Your task to perform on an android device: toggle location history Image 0: 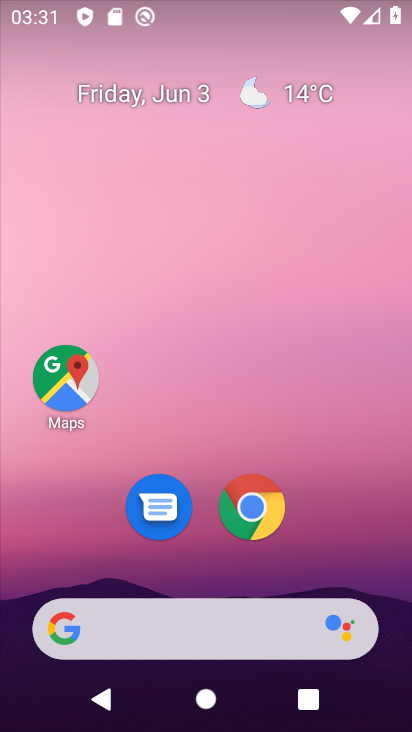
Step 0: press home button
Your task to perform on an android device: toggle location history Image 1: 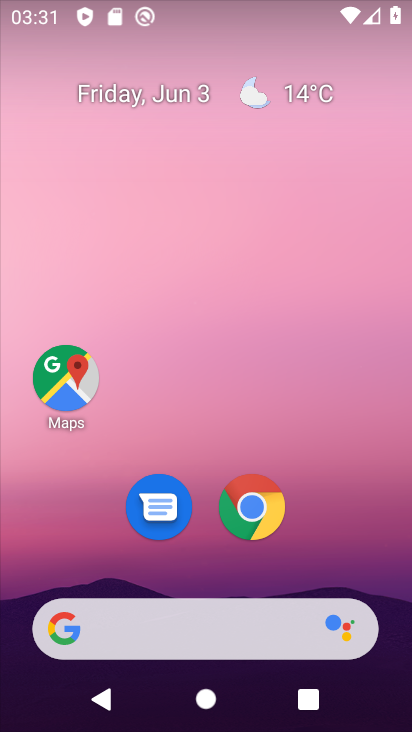
Step 1: drag from (225, 571) to (223, 11)
Your task to perform on an android device: toggle location history Image 2: 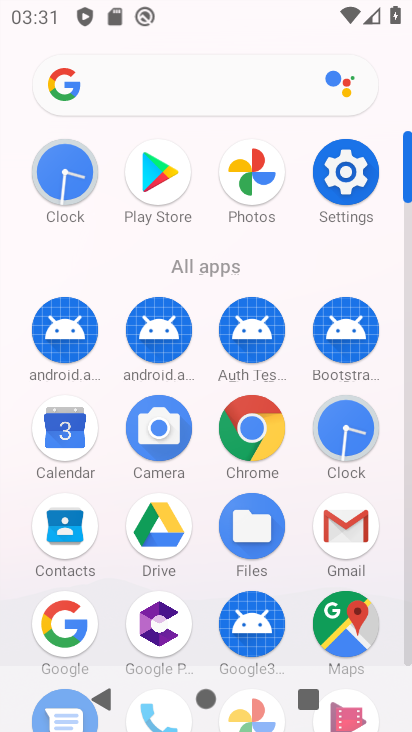
Step 2: click (340, 182)
Your task to perform on an android device: toggle location history Image 3: 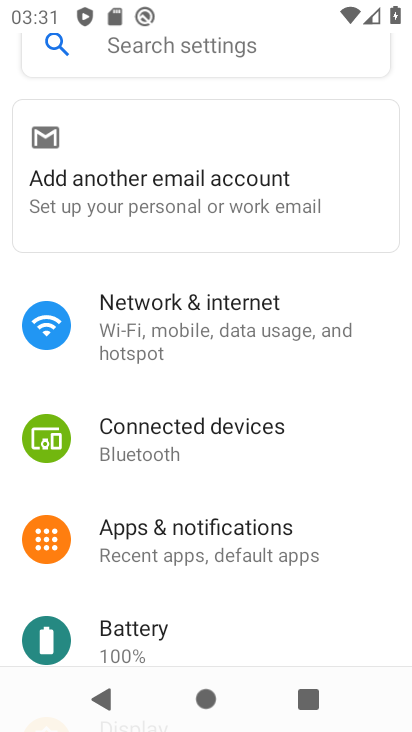
Step 3: drag from (270, 578) to (268, 202)
Your task to perform on an android device: toggle location history Image 4: 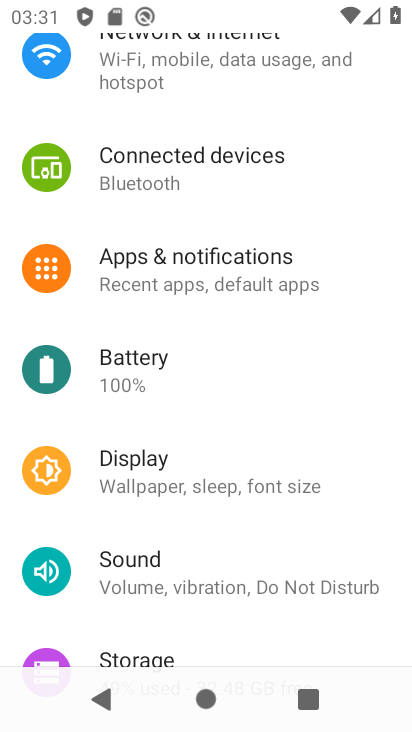
Step 4: drag from (263, 634) to (271, 346)
Your task to perform on an android device: toggle location history Image 5: 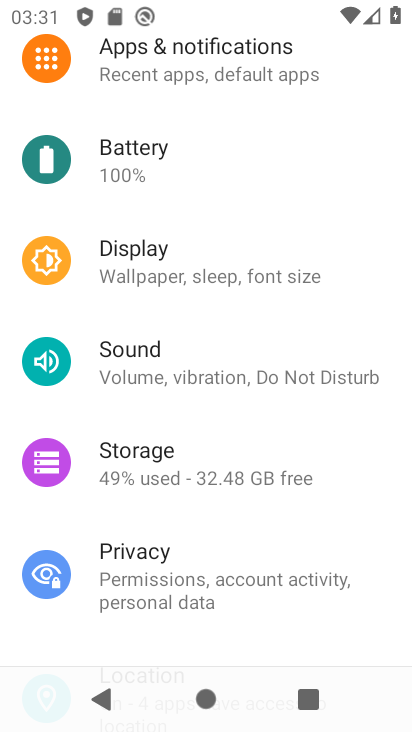
Step 5: drag from (380, 556) to (395, 187)
Your task to perform on an android device: toggle location history Image 6: 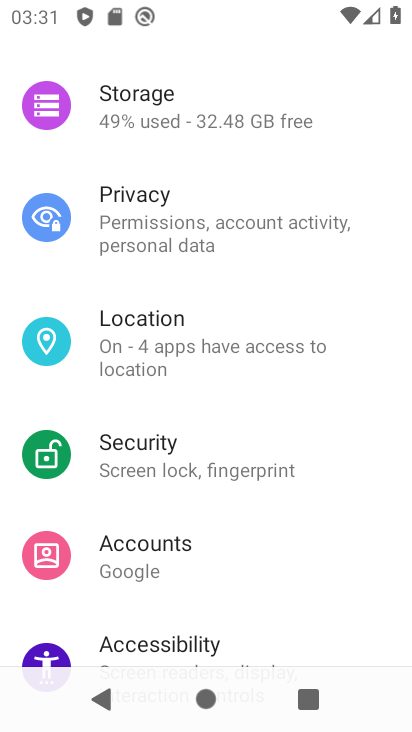
Step 6: click (142, 330)
Your task to perform on an android device: toggle location history Image 7: 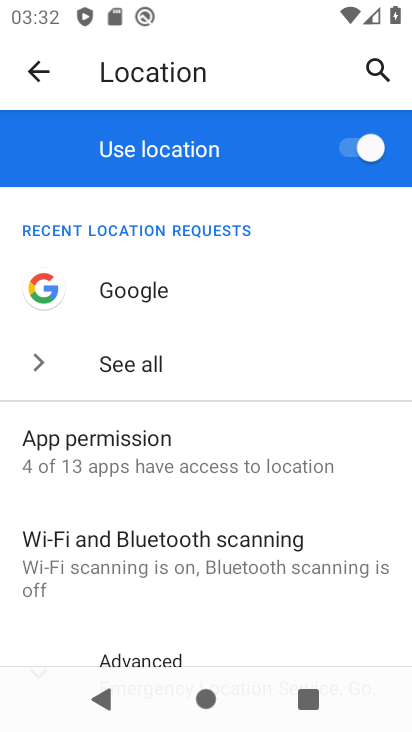
Step 7: drag from (221, 595) to (209, 260)
Your task to perform on an android device: toggle location history Image 8: 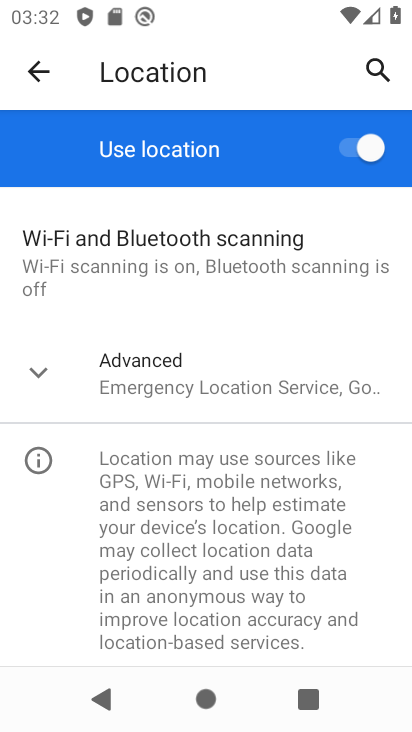
Step 8: click (169, 391)
Your task to perform on an android device: toggle location history Image 9: 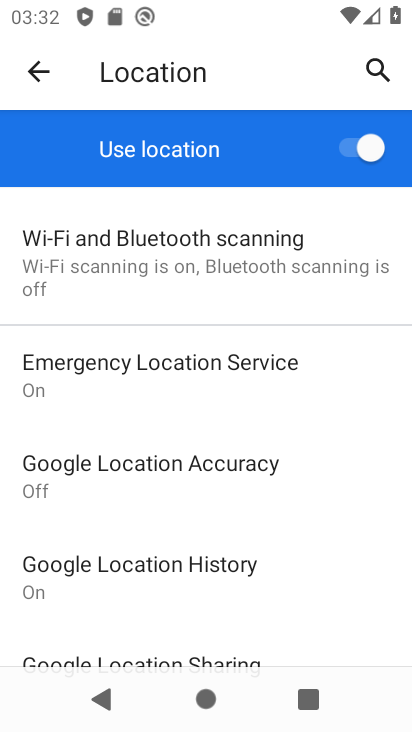
Step 9: click (191, 570)
Your task to perform on an android device: toggle location history Image 10: 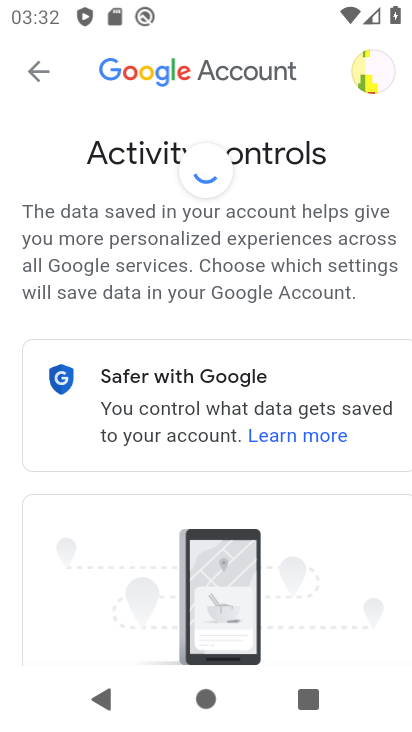
Step 10: drag from (326, 555) to (331, 82)
Your task to perform on an android device: toggle location history Image 11: 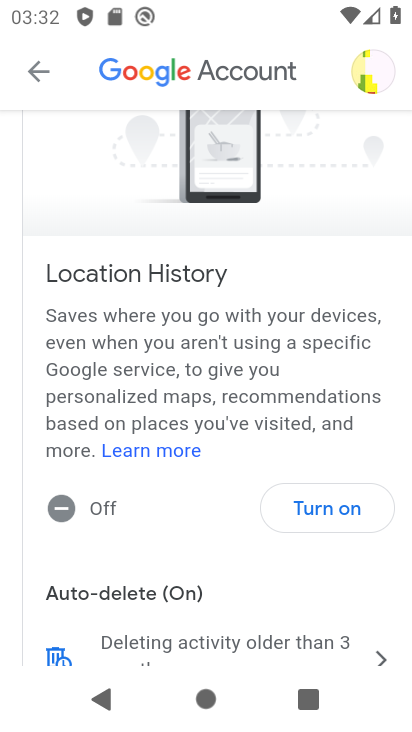
Step 11: click (324, 499)
Your task to perform on an android device: toggle location history Image 12: 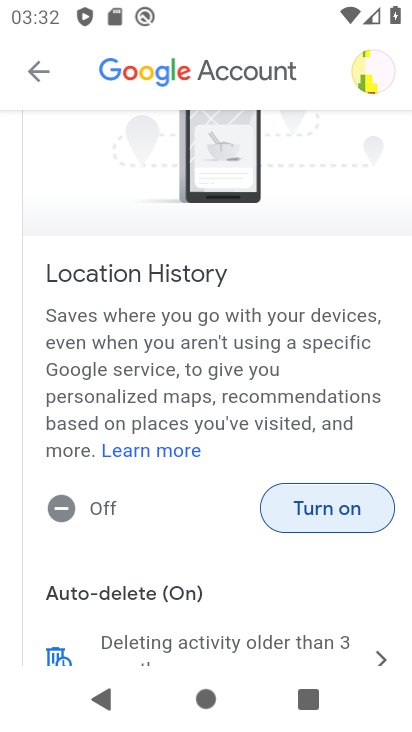
Step 12: click (315, 511)
Your task to perform on an android device: toggle location history Image 13: 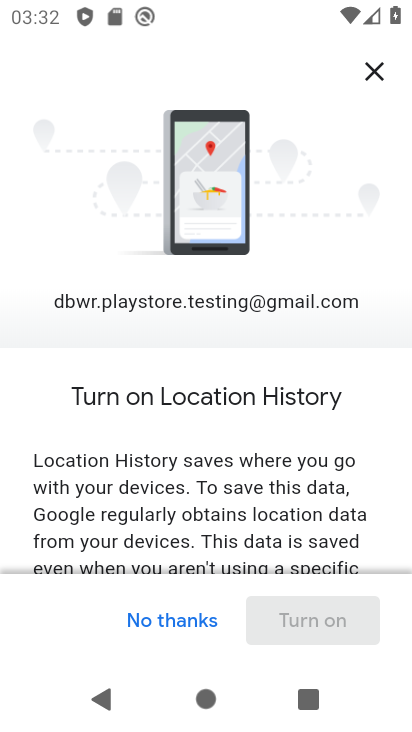
Step 13: click (171, 618)
Your task to perform on an android device: toggle location history Image 14: 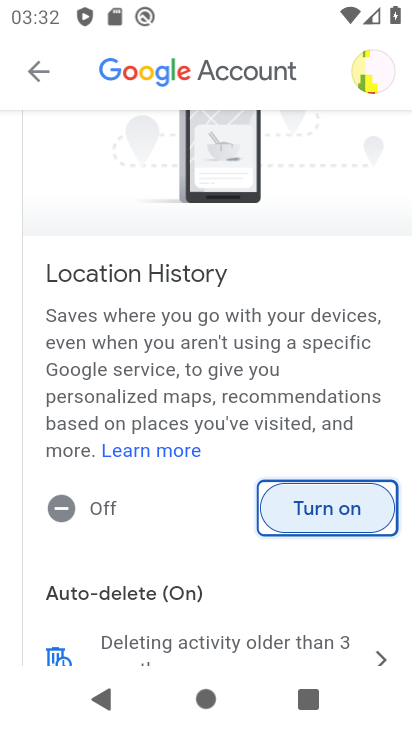
Step 14: click (323, 506)
Your task to perform on an android device: toggle location history Image 15: 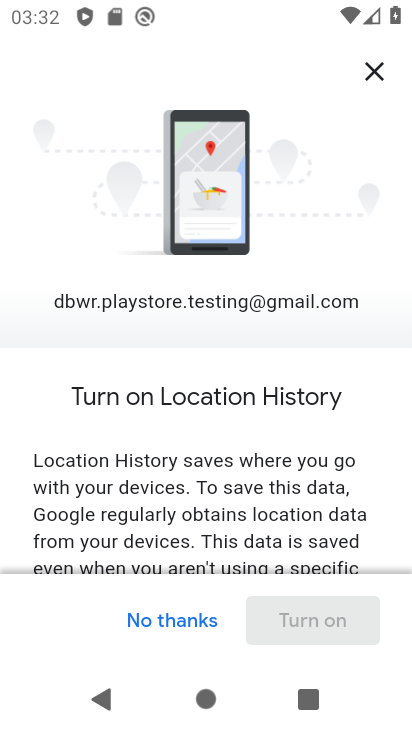
Step 15: click (286, 613)
Your task to perform on an android device: toggle location history Image 16: 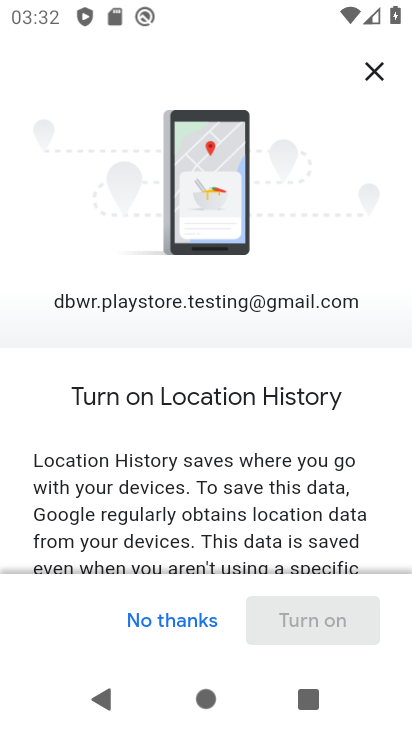
Step 16: drag from (331, 527) to (273, 5)
Your task to perform on an android device: toggle location history Image 17: 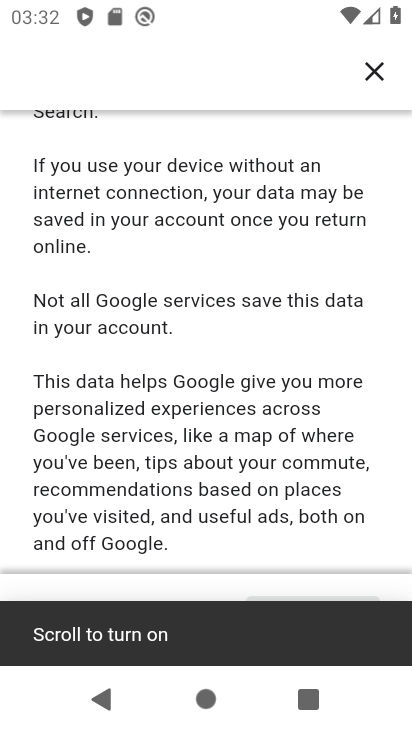
Step 17: drag from (234, 410) to (238, 5)
Your task to perform on an android device: toggle location history Image 18: 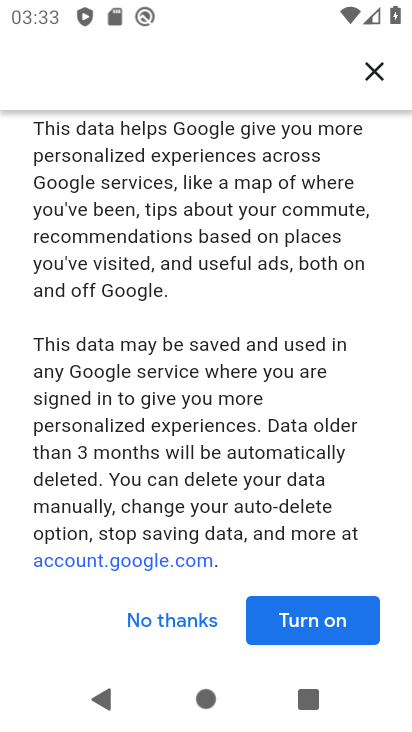
Step 18: click (307, 599)
Your task to perform on an android device: toggle location history Image 19: 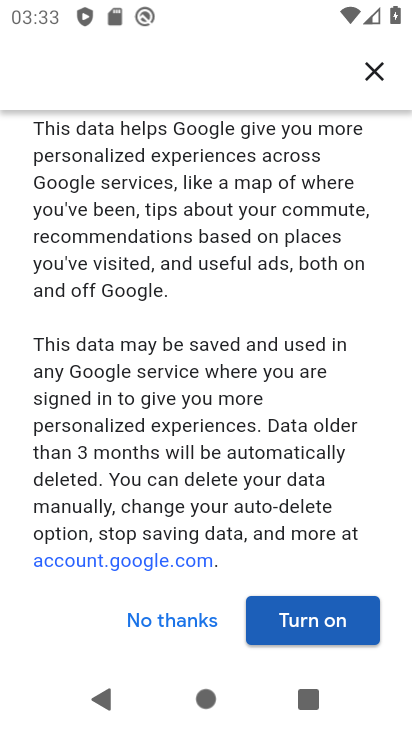
Step 19: click (266, 625)
Your task to perform on an android device: toggle location history Image 20: 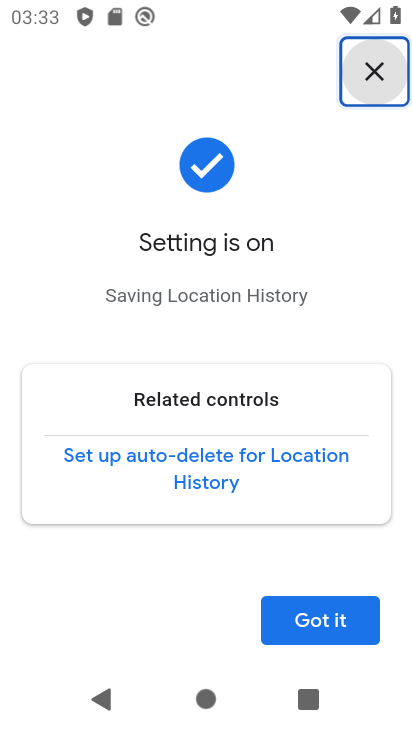
Step 20: click (323, 619)
Your task to perform on an android device: toggle location history Image 21: 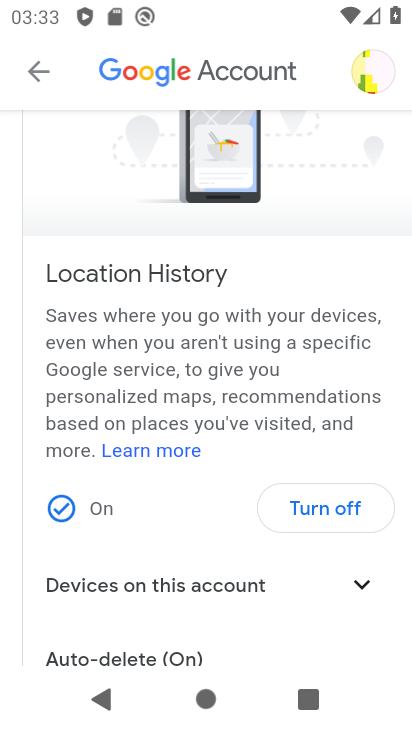
Step 21: task complete